Your task to perform on an android device: toggle data saver in the chrome app Image 0: 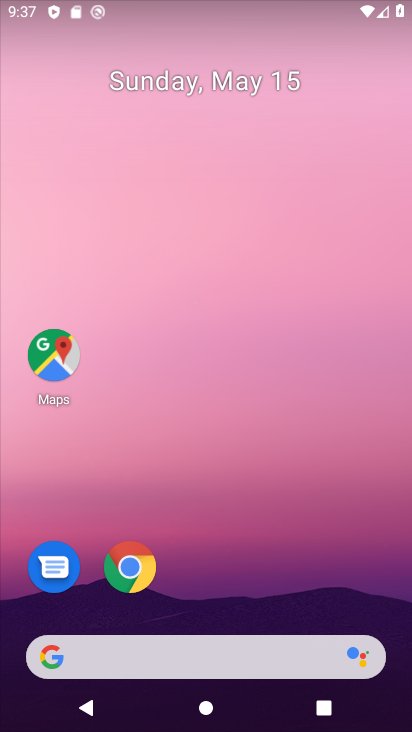
Step 0: click (132, 564)
Your task to perform on an android device: toggle data saver in the chrome app Image 1: 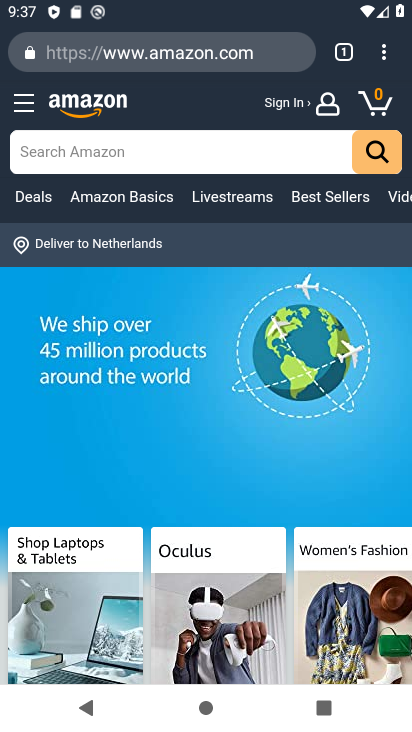
Step 1: click (378, 50)
Your task to perform on an android device: toggle data saver in the chrome app Image 2: 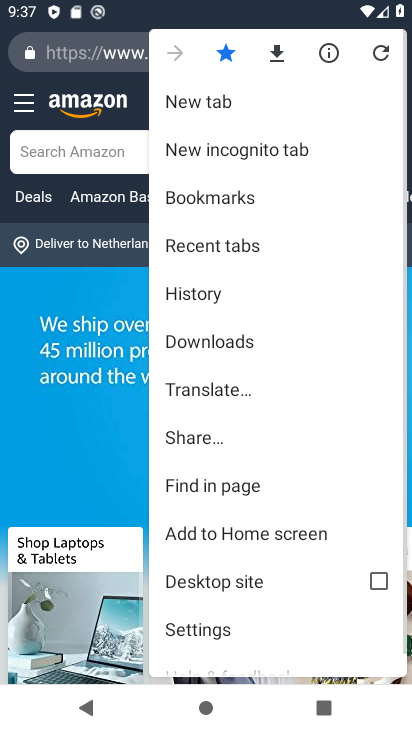
Step 2: click (217, 621)
Your task to perform on an android device: toggle data saver in the chrome app Image 3: 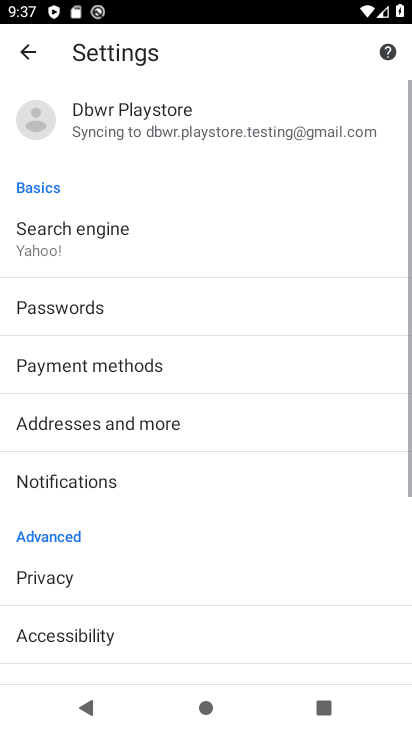
Step 3: drag from (197, 546) to (191, 203)
Your task to perform on an android device: toggle data saver in the chrome app Image 4: 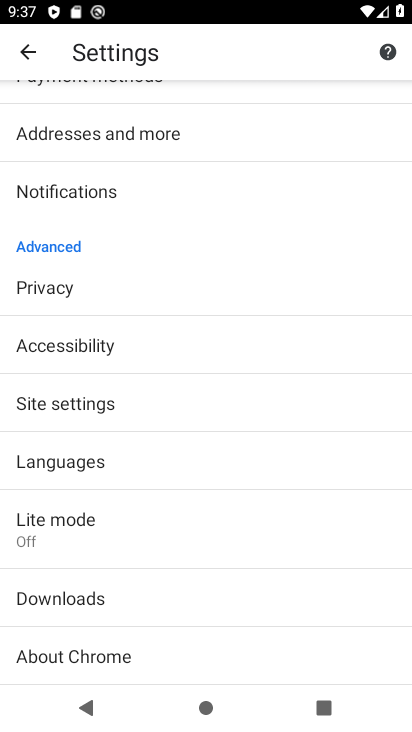
Step 4: click (103, 521)
Your task to perform on an android device: toggle data saver in the chrome app Image 5: 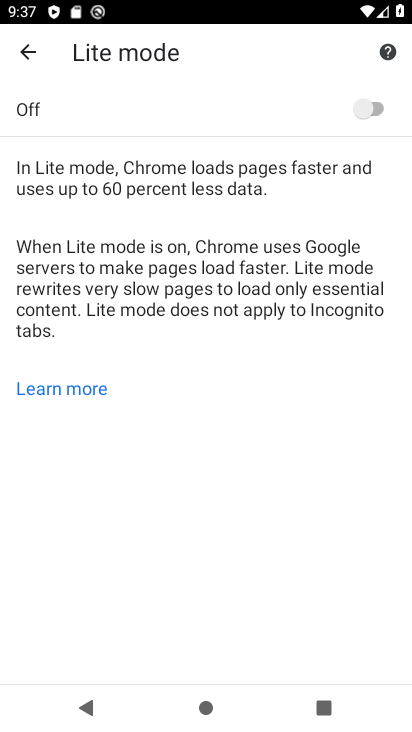
Step 5: click (367, 107)
Your task to perform on an android device: toggle data saver in the chrome app Image 6: 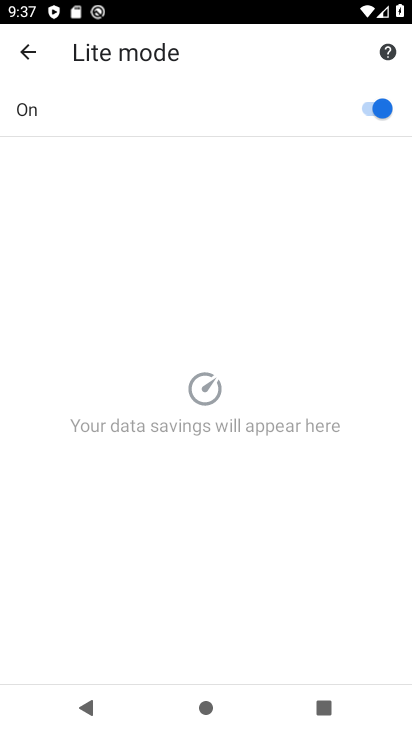
Step 6: task complete